Your task to perform on an android device: open app "LiveIn - Share Your Moment" (install if not already installed) and go to login screen Image 0: 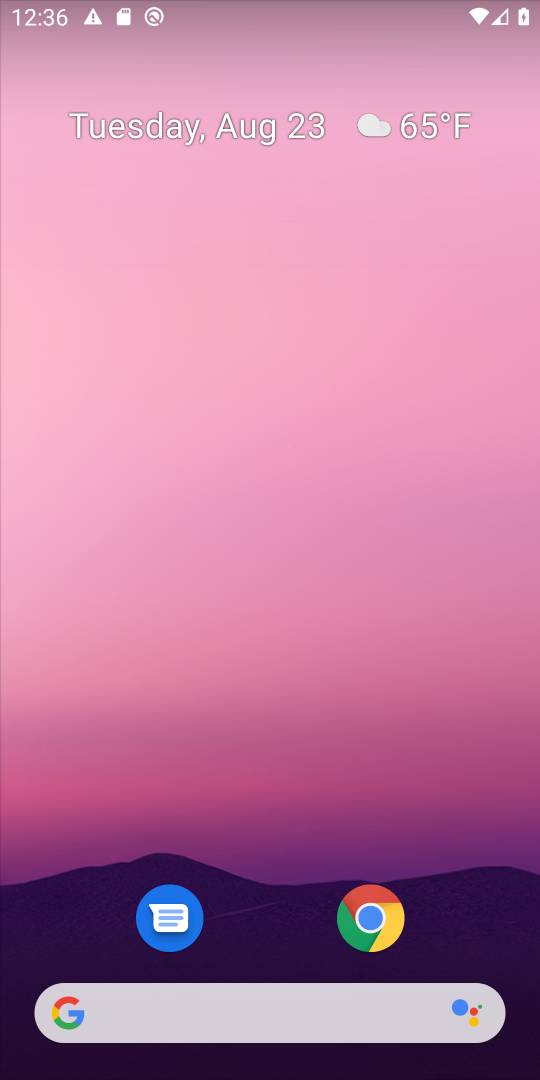
Step 0: drag from (273, 940) to (361, 37)
Your task to perform on an android device: open app "LiveIn - Share Your Moment" (install if not already installed) and go to login screen Image 1: 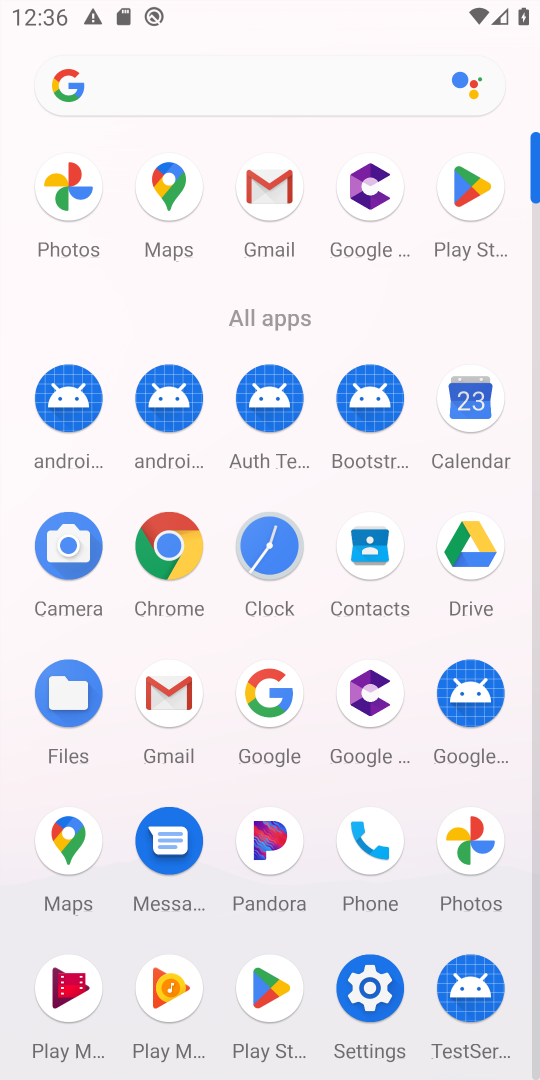
Step 1: click (463, 178)
Your task to perform on an android device: open app "LiveIn - Share Your Moment" (install if not already installed) and go to login screen Image 2: 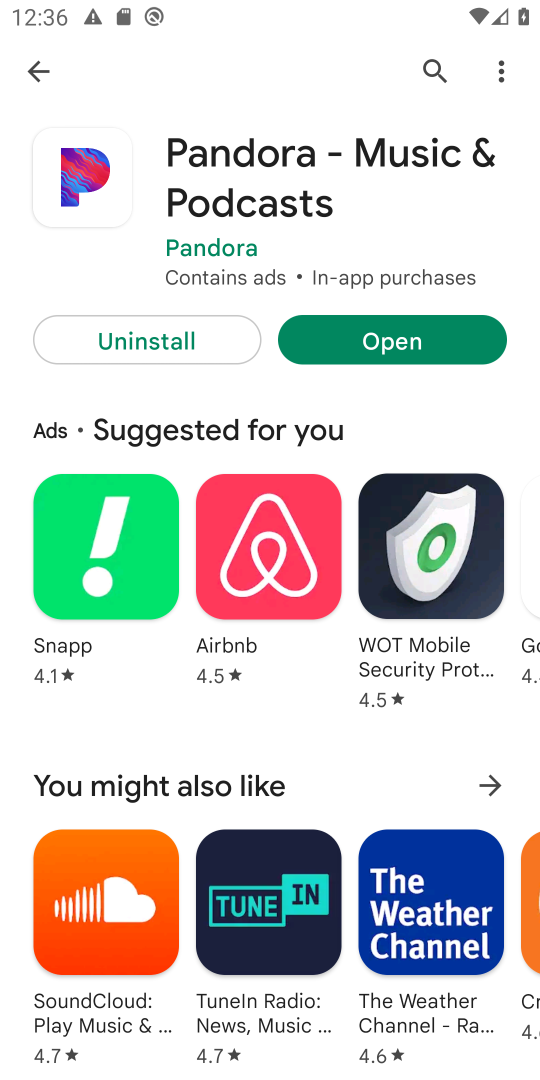
Step 2: click (429, 69)
Your task to perform on an android device: open app "LiveIn - Share Your Moment" (install if not already installed) and go to login screen Image 3: 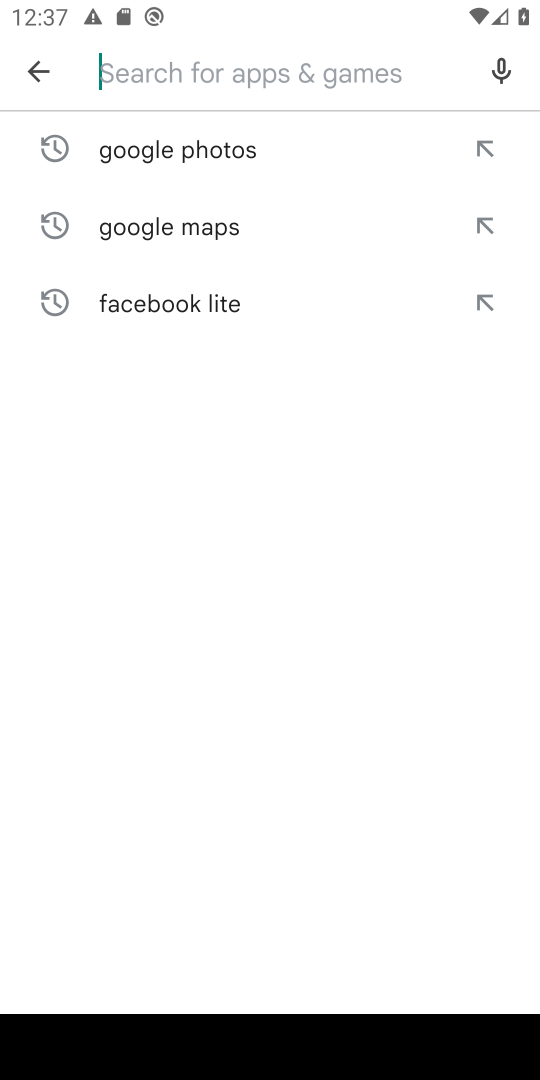
Step 3: type "LiveIn - Share Your Moment"
Your task to perform on an android device: open app "LiveIn - Share Your Moment" (install if not already installed) and go to login screen Image 4: 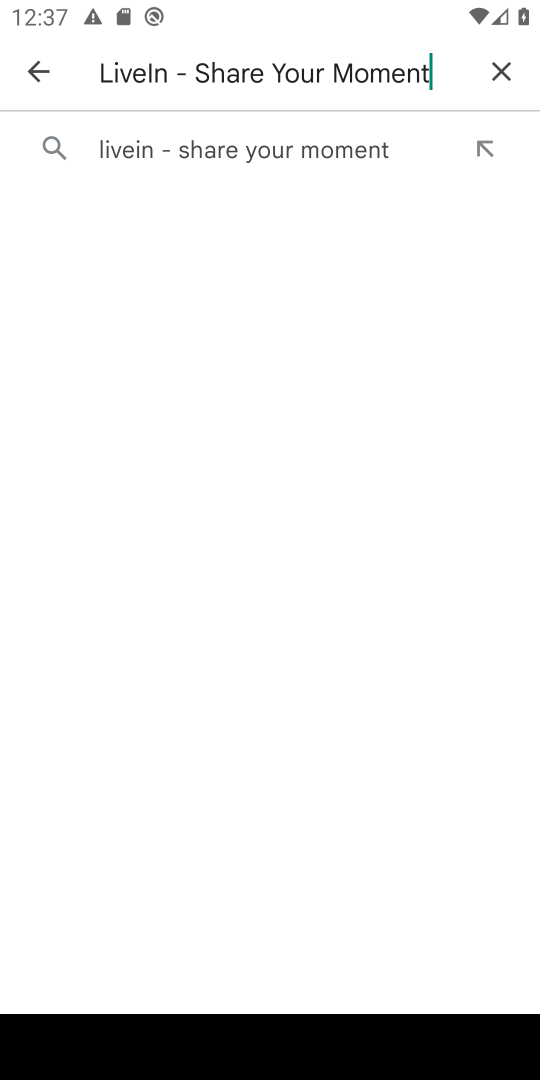
Step 4: task complete